Your task to perform on an android device: Open network settings Image 0: 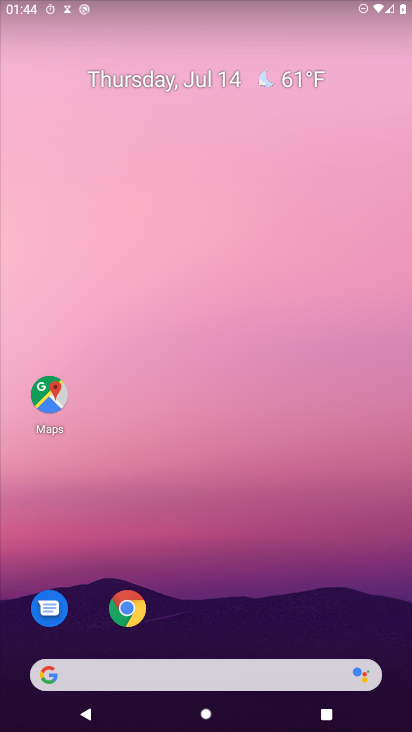
Step 0: press home button
Your task to perform on an android device: Open network settings Image 1: 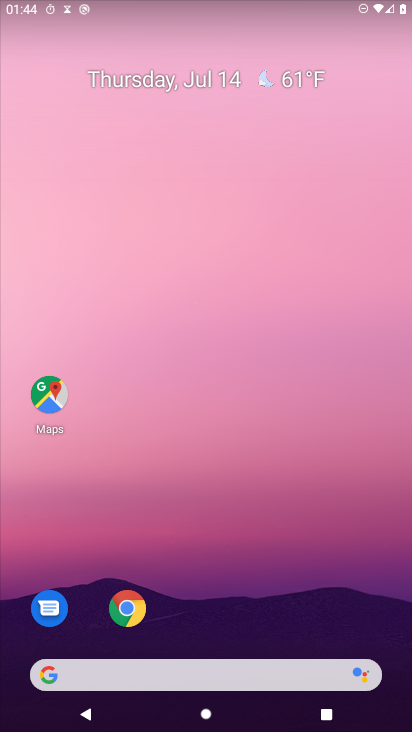
Step 1: drag from (221, 623) to (233, 228)
Your task to perform on an android device: Open network settings Image 2: 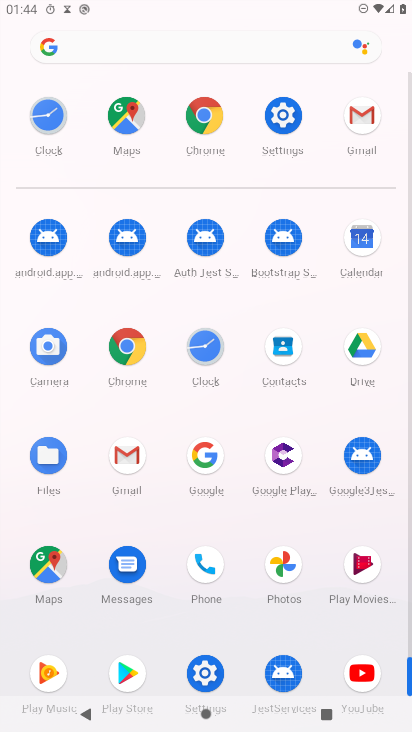
Step 2: click (276, 111)
Your task to perform on an android device: Open network settings Image 3: 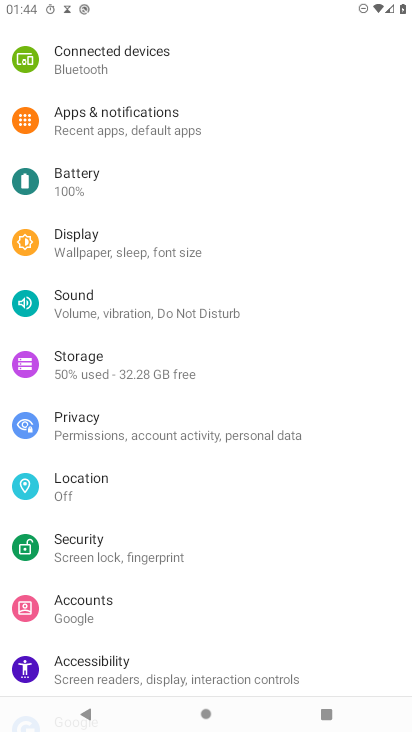
Step 3: drag from (217, 196) to (242, 454)
Your task to perform on an android device: Open network settings Image 4: 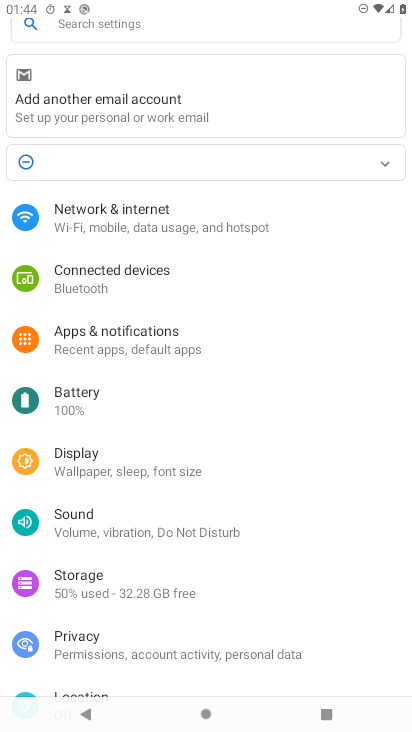
Step 4: click (127, 226)
Your task to perform on an android device: Open network settings Image 5: 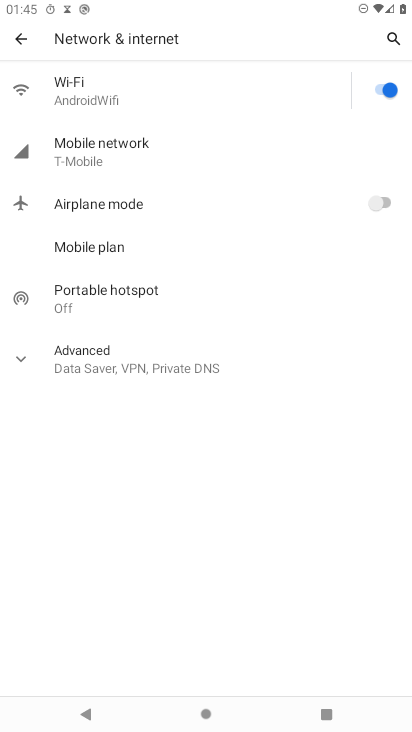
Step 5: click (101, 153)
Your task to perform on an android device: Open network settings Image 6: 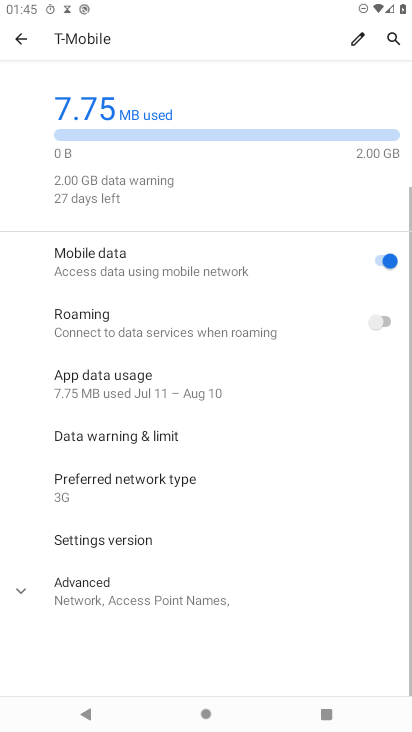
Step 6: task complete